Your task to perform on an android device: Open the phone app and click the voicemail tab. Image 0: 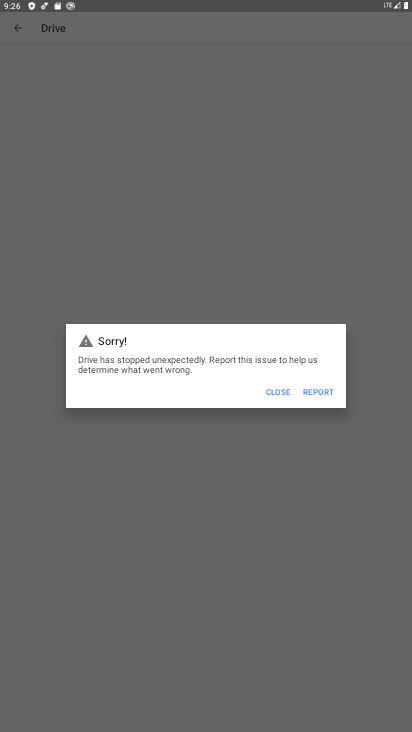
Step 0: press home button
Your task to perform on an android device: Open the phone app and click the voicemail tab. Image 1: 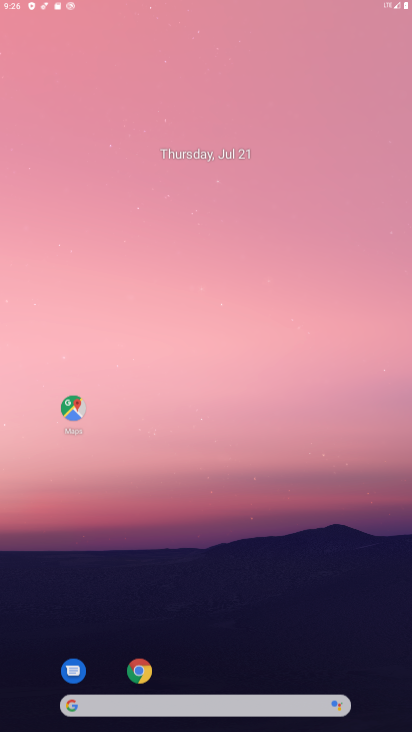
Step 1: press home button
Your task to perform on an android device: Open the phone app and click the voicemail tab. Image 2: 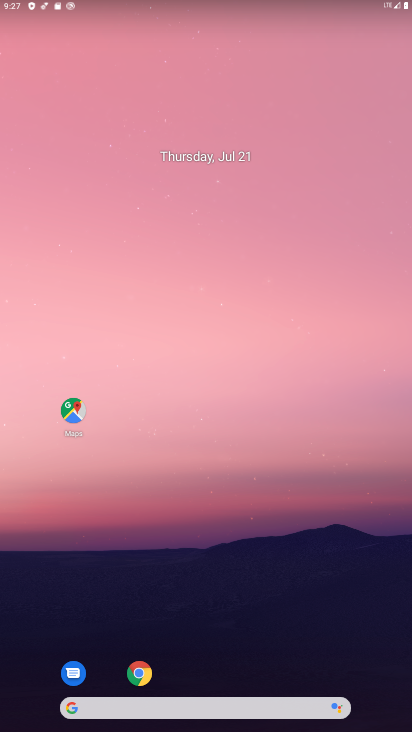
Step 2: drag from (160, 664) to (189, 166)
Your task to perform on an android device: Open the phone app and click the voicemail tab. Image 3: 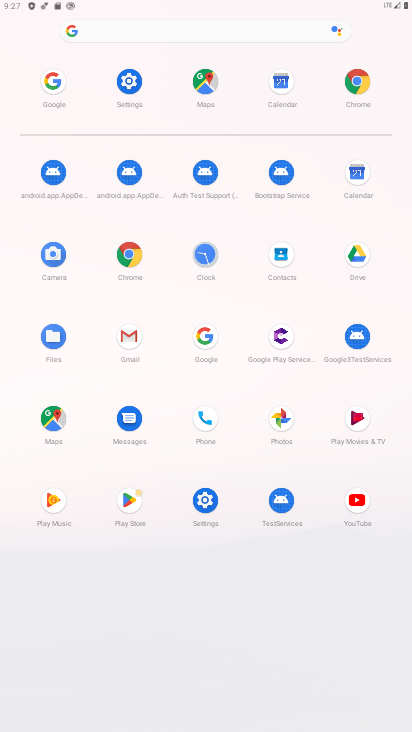
Step 3: click (207, 420)
Your task to perform on an android device: Open the phone app and click the voicemail tab. Image 4: 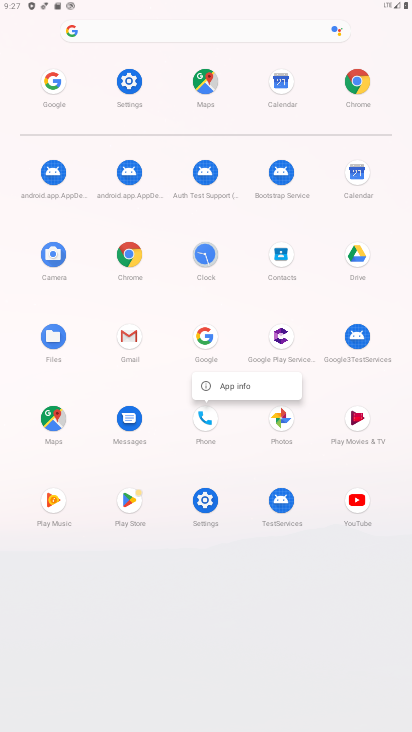
Step 4: click (223, 388)
Your task to perform on an android device: Open the phone app and click the voicemail tab. Image 5: 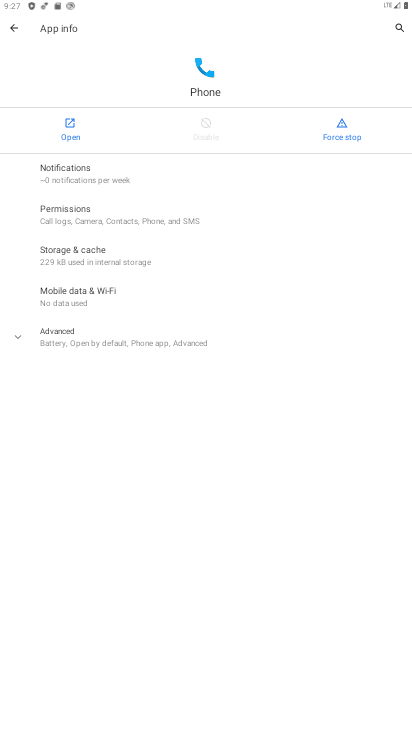
Step 5: click (67, 131)
Your task to perform on an android device: Open the phone app and click the voicemail tab. Image 6: 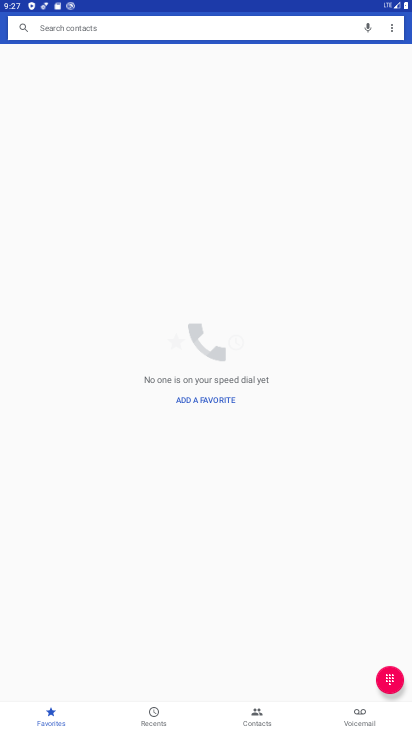
Step 6: click (356, 710)
Your task to perform on an android device: Open the phone app and click the voicemail tab. Image 7: 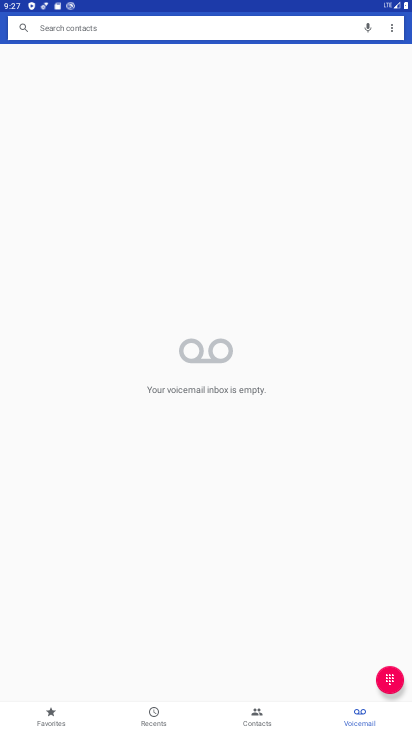
Step 7: task complete